Your task to perform on an android device: check data usage Image 0: 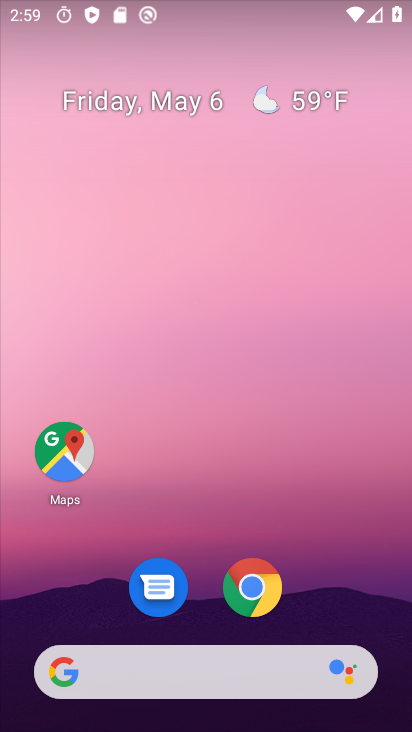
Step 0: drag from (336, 554) to (342, 24)
Your task to perform on an android device: check data usage Image 1: 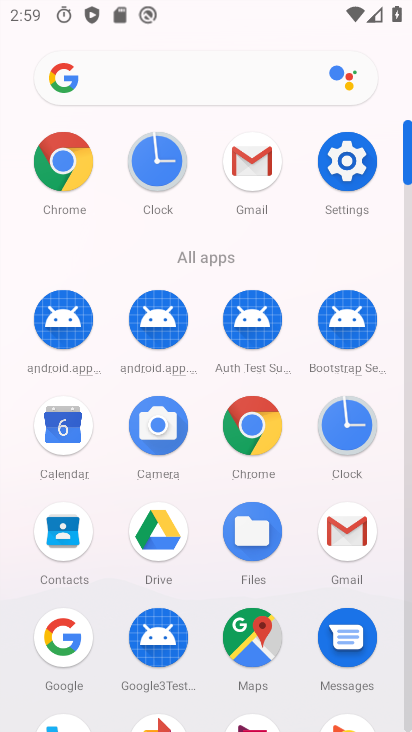
Step 1: click (340, 158)
Your task to perform on an android device: check data usage Image 2: 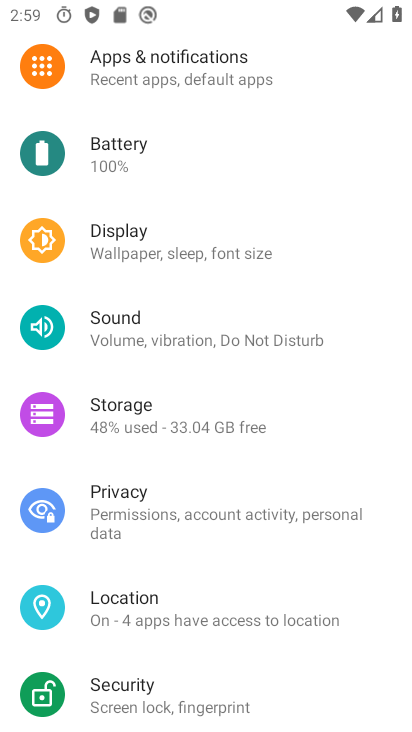
Step 2: drag from (249, 210) to (227, 644)
Your task to perform on an android device: check data usage Image 3: 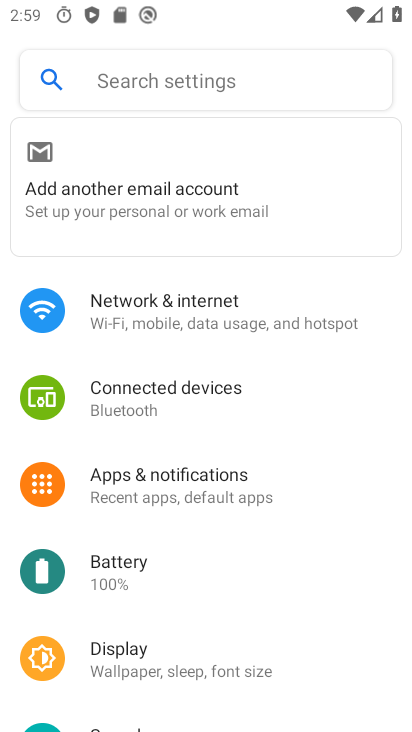
Step 3: click (228, 303)
Your task to perform on an android device: check data usage Image 4: 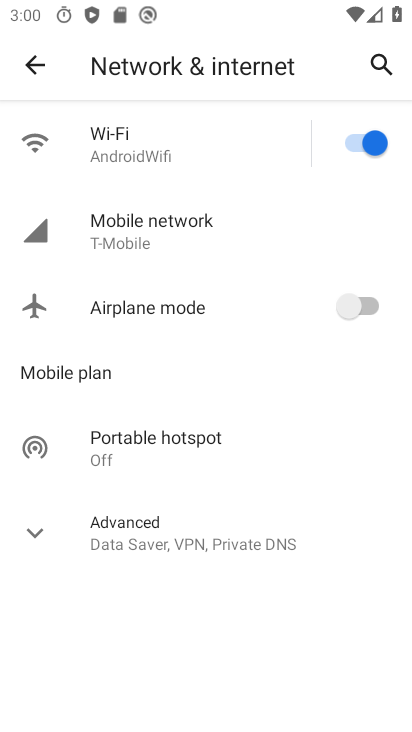
Step 4: click (241, 214)
Your task to perform on an android device: check data usage Image 5: 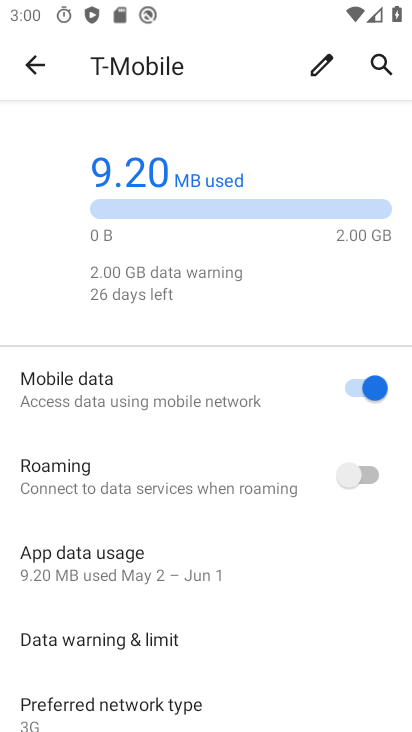
Step 5: task complete